Your task to perform on an android device: turn notification dots off Image 0: 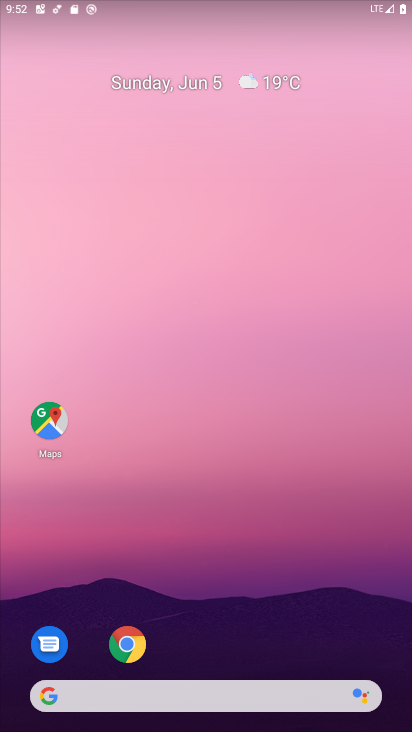
Step 0: drag from (292, 394) to (165, 4)
Your task to perform on an android device: turn notification dots off Image 1: 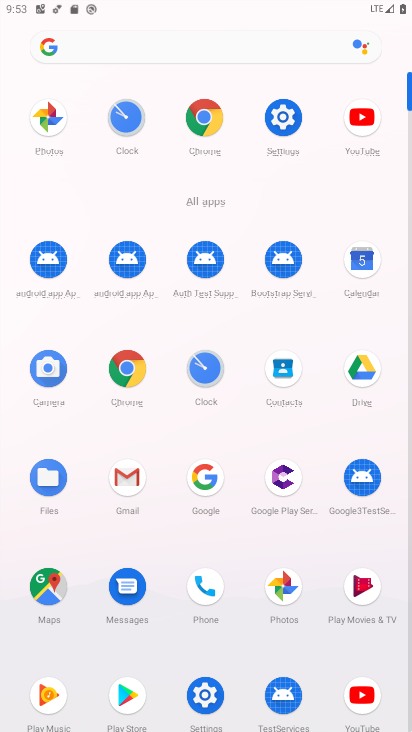
Step 1: click (279, 111)
Your task to perform on an android device: turn notification dots off Image 2: 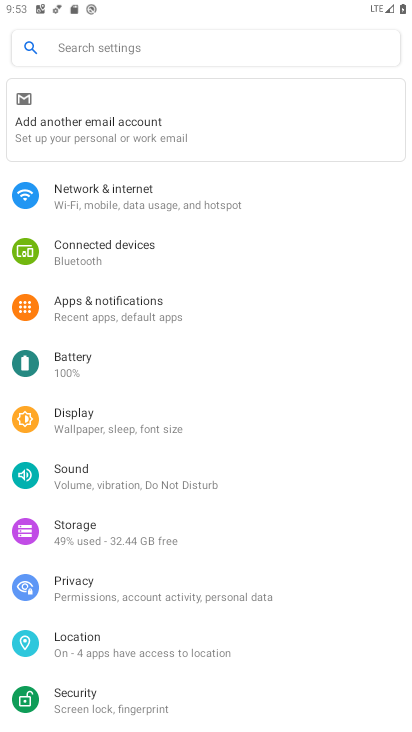
Step 2: click (128, 325)
Your task to perform on an android device: turn notification dots off Image 3: 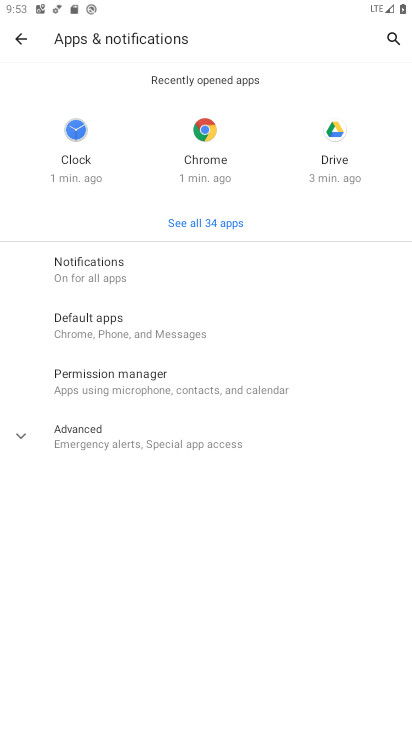
Step 3: click (160, 277)
Your task to perform on an android device: turn notification dots off Image 4: 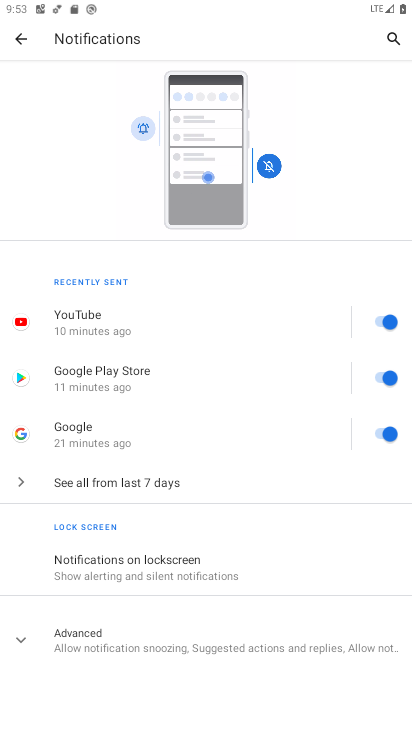
Step 4: drag from (244, 585) to (286, 202)
Your task to perform on an android device: turn notification dots off Image 5: 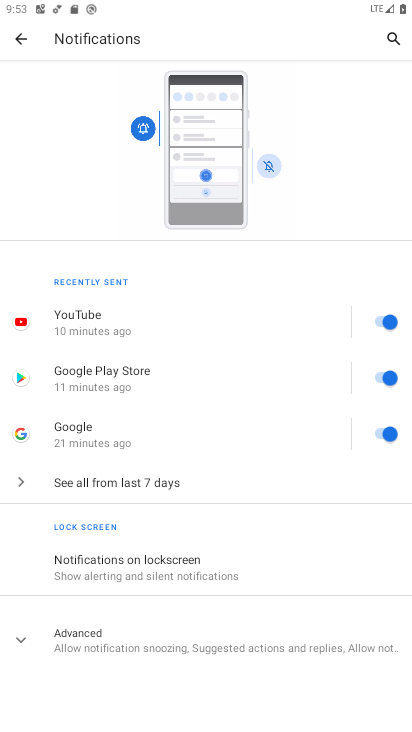
Step 5: click (205, 638)
Your task to perform on an android device: turn notification dots off Image 6: 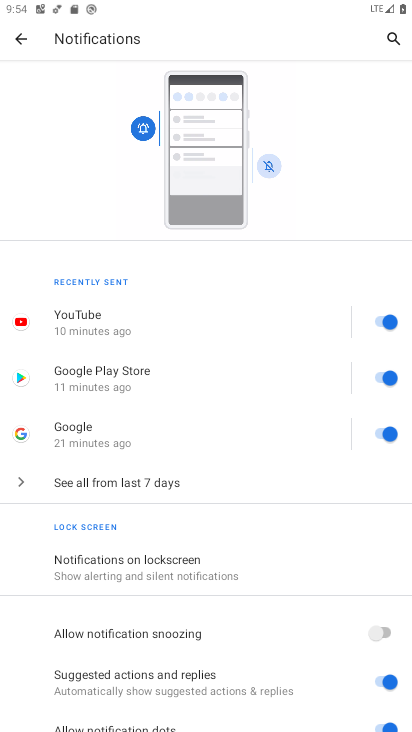
Step 6: drag from (232, 589) to (254, 336)
Your task to perform on an android device: turn notification dots off Image 7: 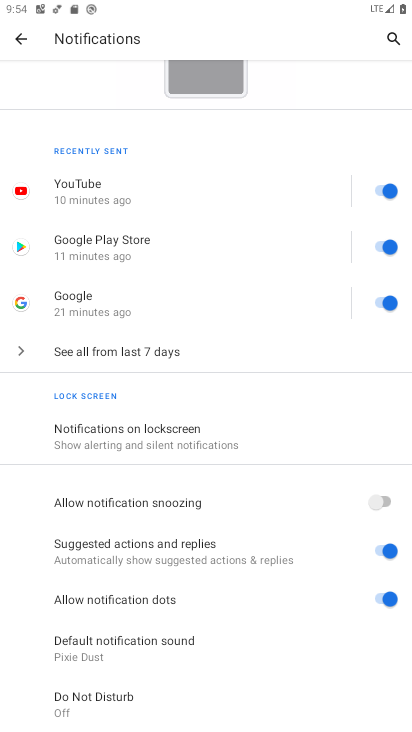
Step 7: click (379, 591)
Your task to perform on an android device: turn notification dots off Image 8: 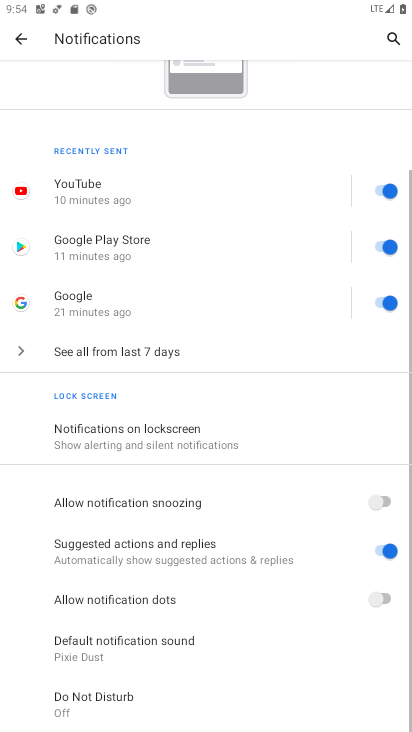
Step 8: task complete